Your task to perform on an android device: Open Android settings Image 0: 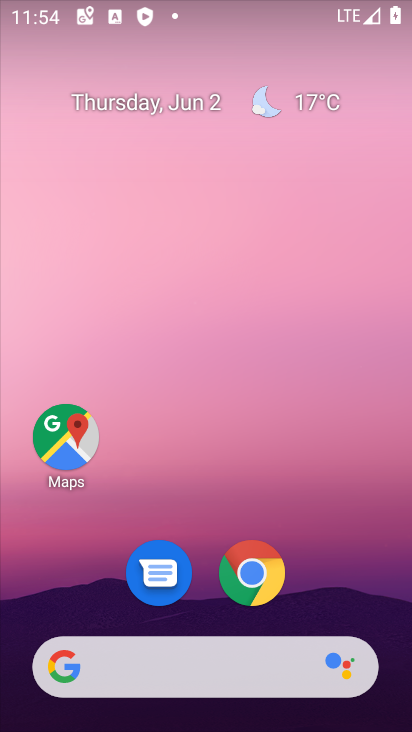
Step 0: click (321, 88)
Your task to perform on an android device: Open Android settings Image 1: 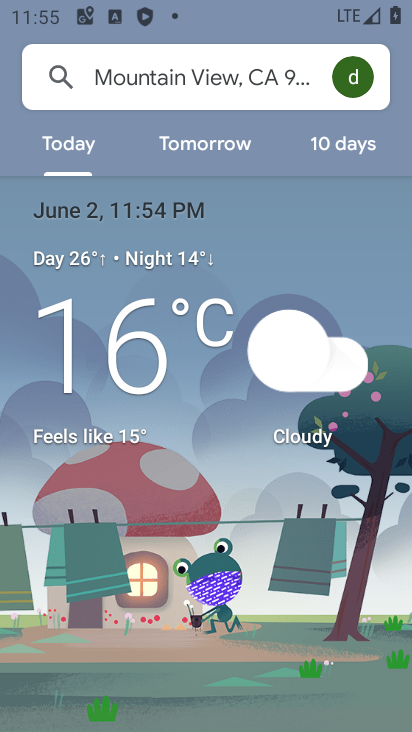
Step 1: press home button
Your task to perform on an android device: Open Android settings Image 2: 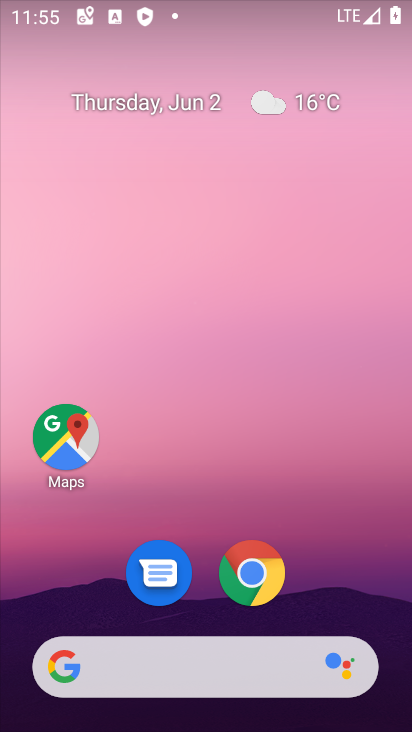
Step 2: drag from (380, 439) to (290, 0)
Your task to perform on an android device: Open Android settings Image 3: 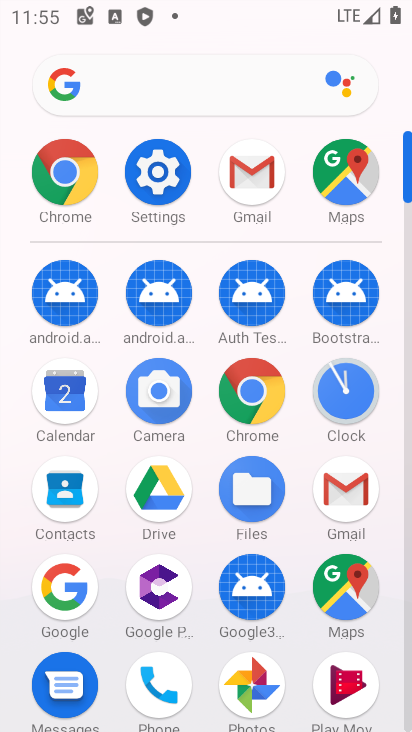
Step 3: click (159, 149)
Your task to perform on an android device: Open Android settings Image 4: 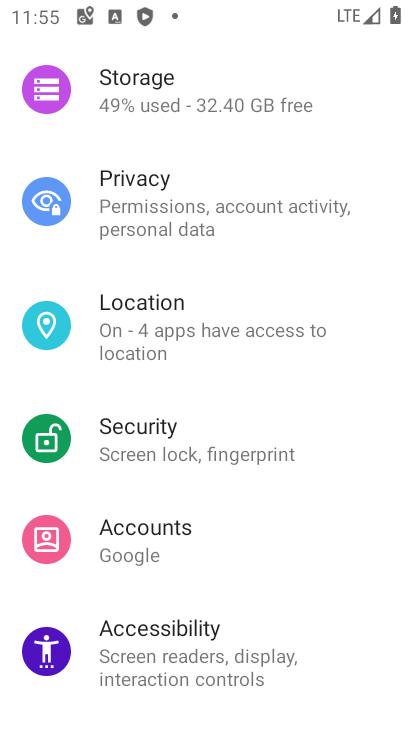
Step 4: drag from (251, 624) to (323, 186)
Your task to perform on an android device: Open Android settings Image 5: 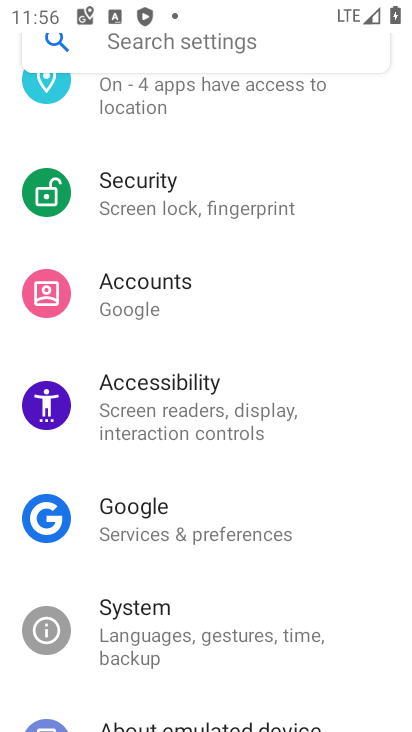
Step 5: click (313, 45)
Your task to perform on an android device: Open Android settings Image 6: 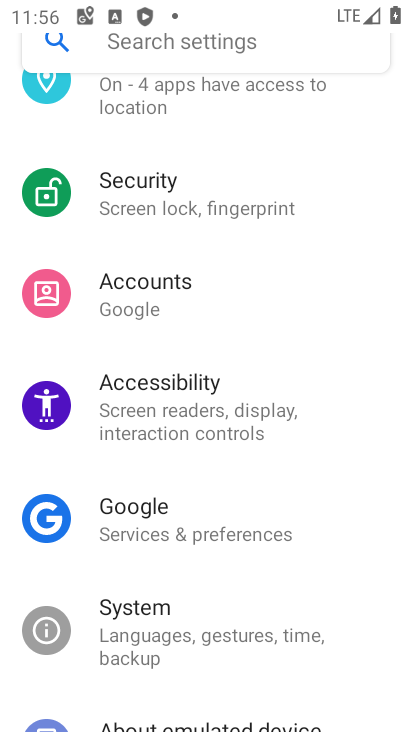
Step 6: task complete